Your task to perform on an android device: turn off location history Image 0: 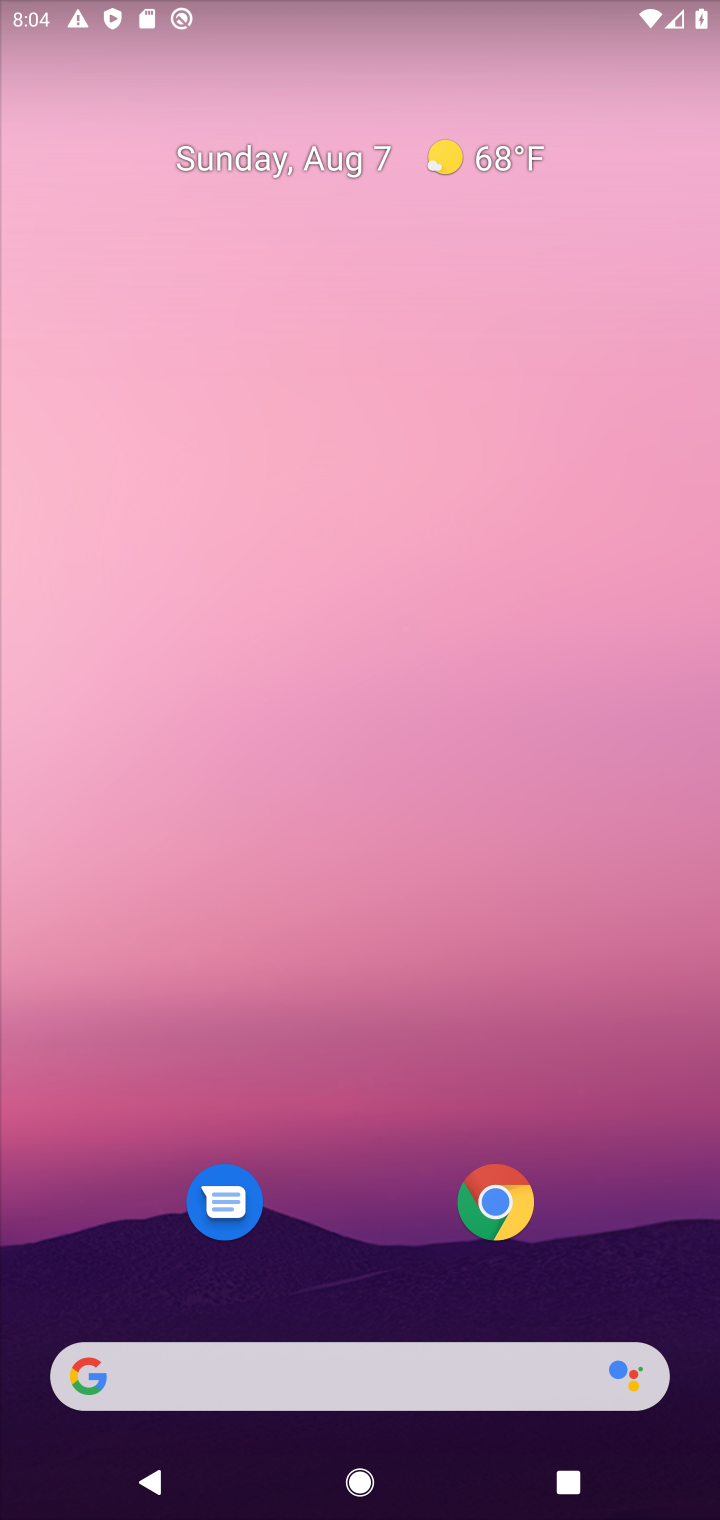
Step 0: drag from (331, 1327) to (535, 12)
Your task to perform on an android device: turn off location history Image 1: 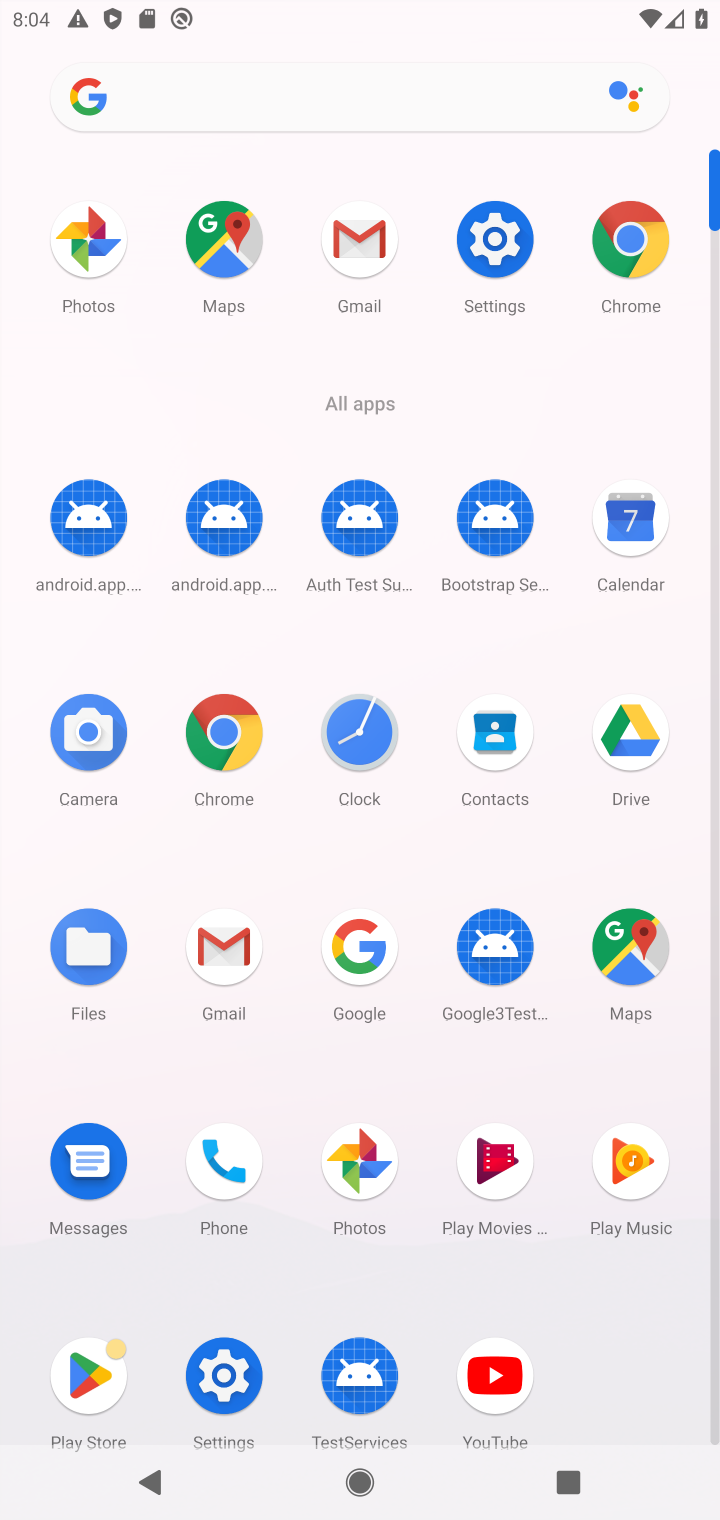
Step 1: click (505, 303)
Your task to perform on an android device: turn off location history Image 2: 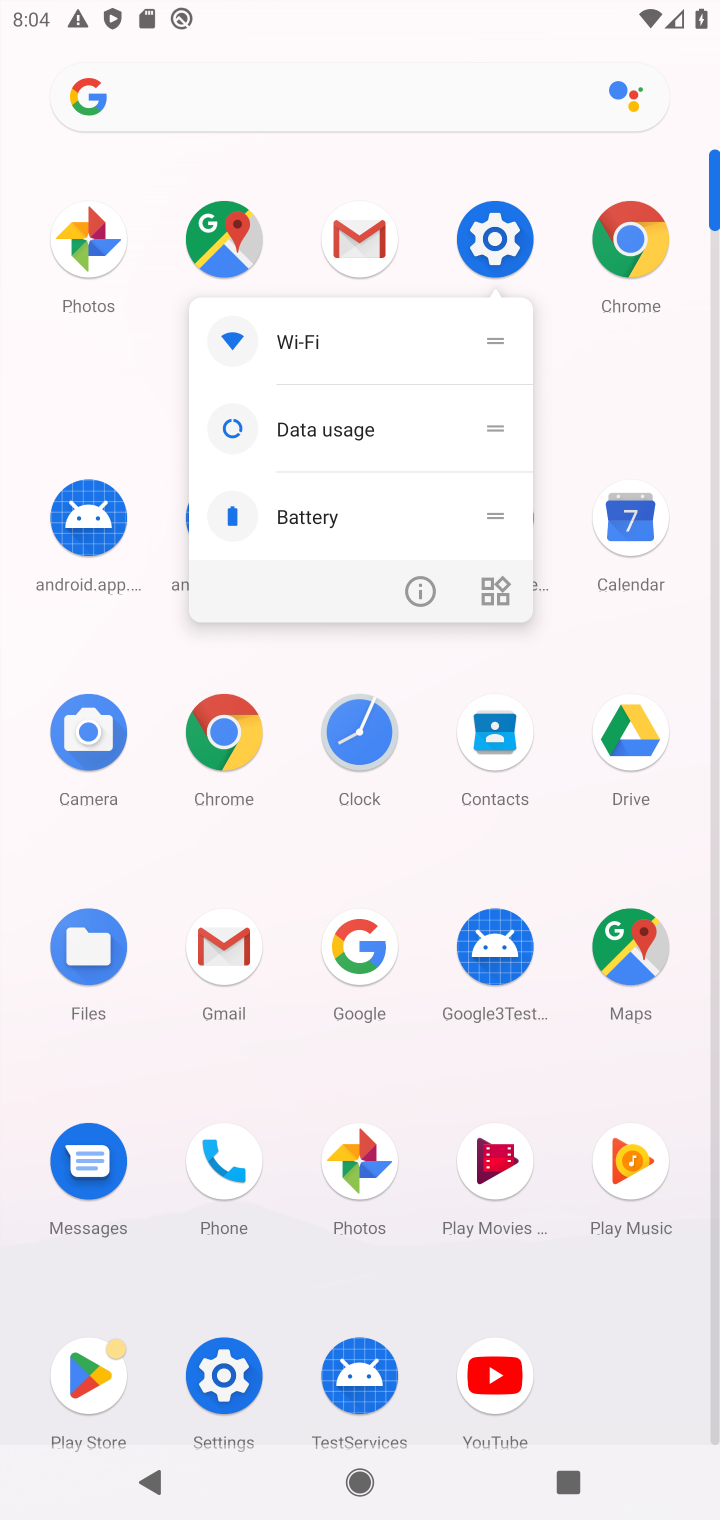
Step 2: click (511, 237)
Your task to perform on an android device: turn off location history Image 3: 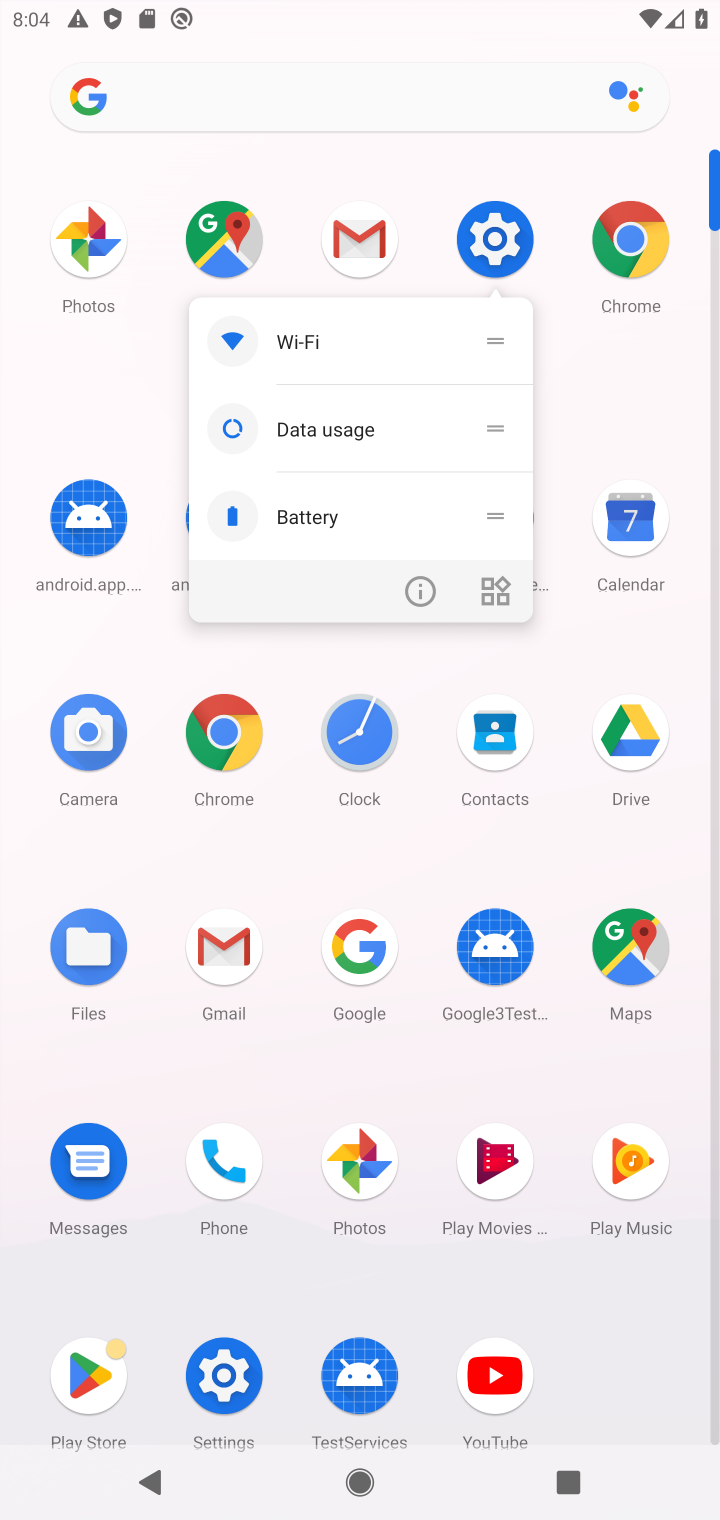
Step 3: click (518, 237)
Your task to perform on an android device: turn off location history Image 4: 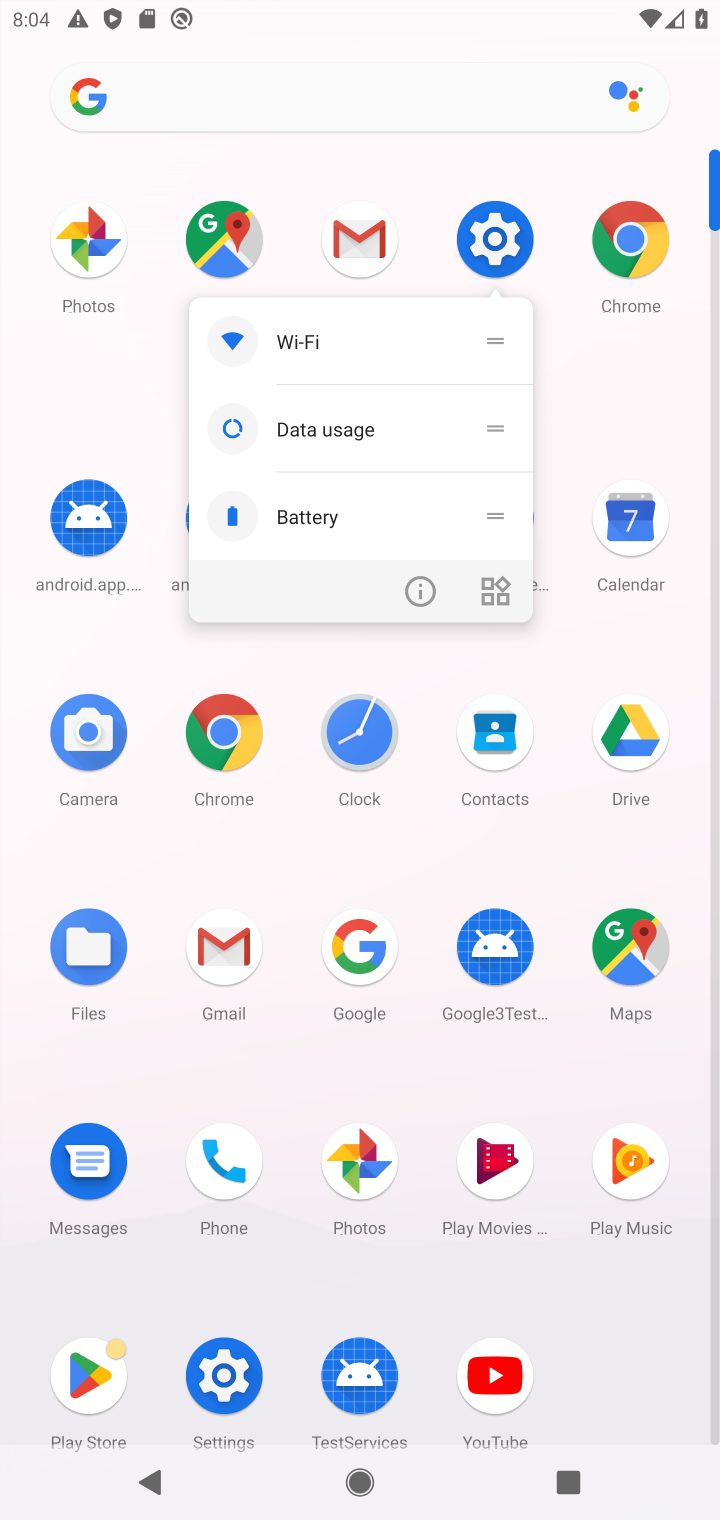
Step 4: click (491, 241)
Your task to perform on an android device: turn off location history Image 5: 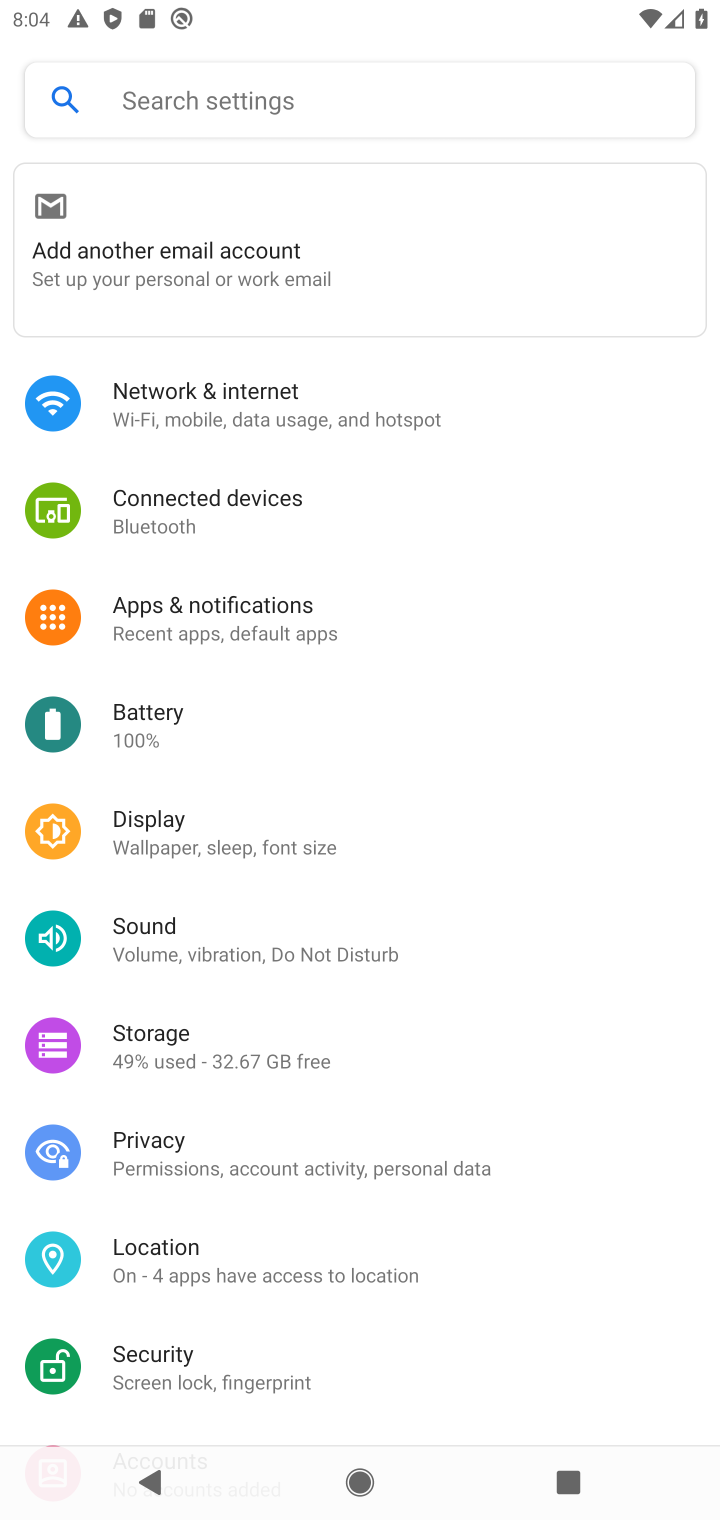
Step 5: click (218, 1249)
Your task to perform on an android device: turn off location history Image 6: 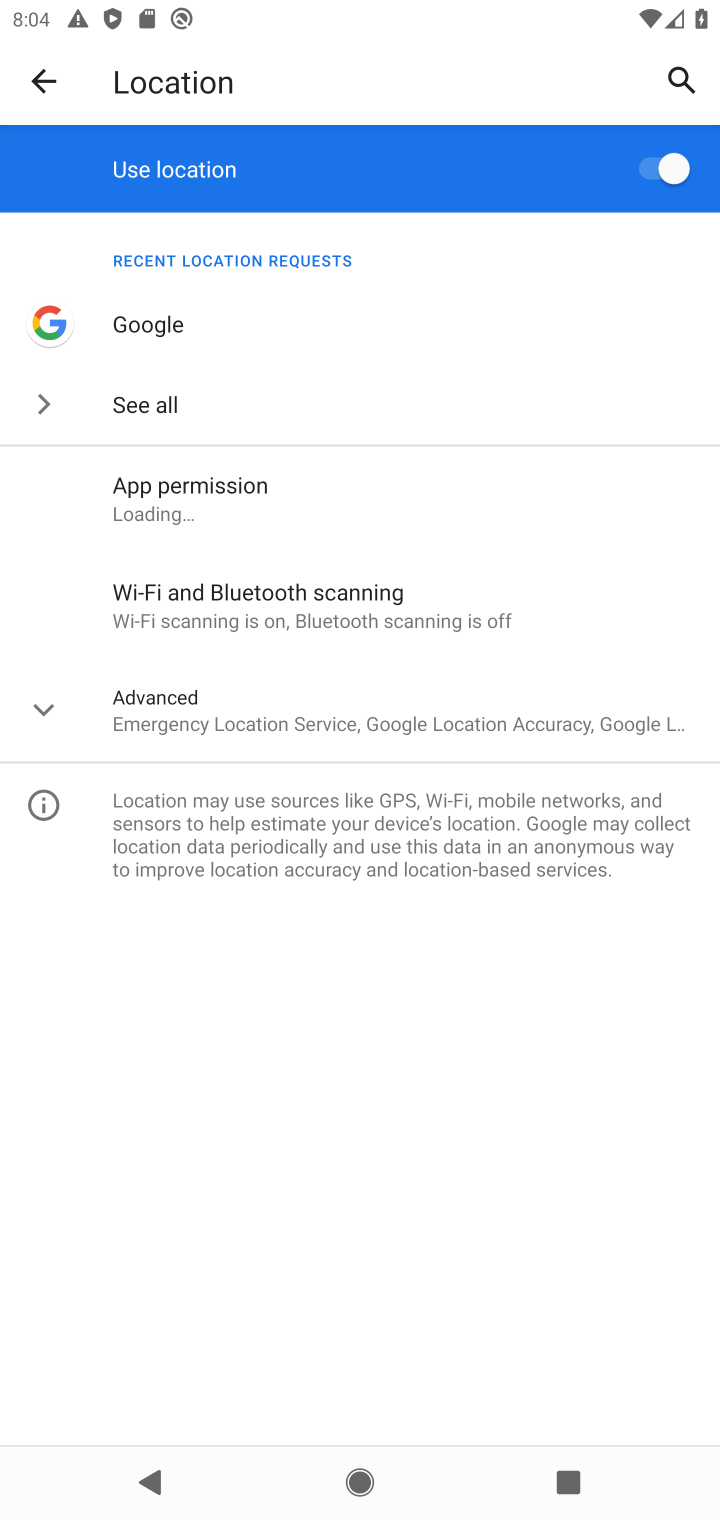
Step 6: click (204, 702)
Your task to perform on an android device: turn off location history Image 7: 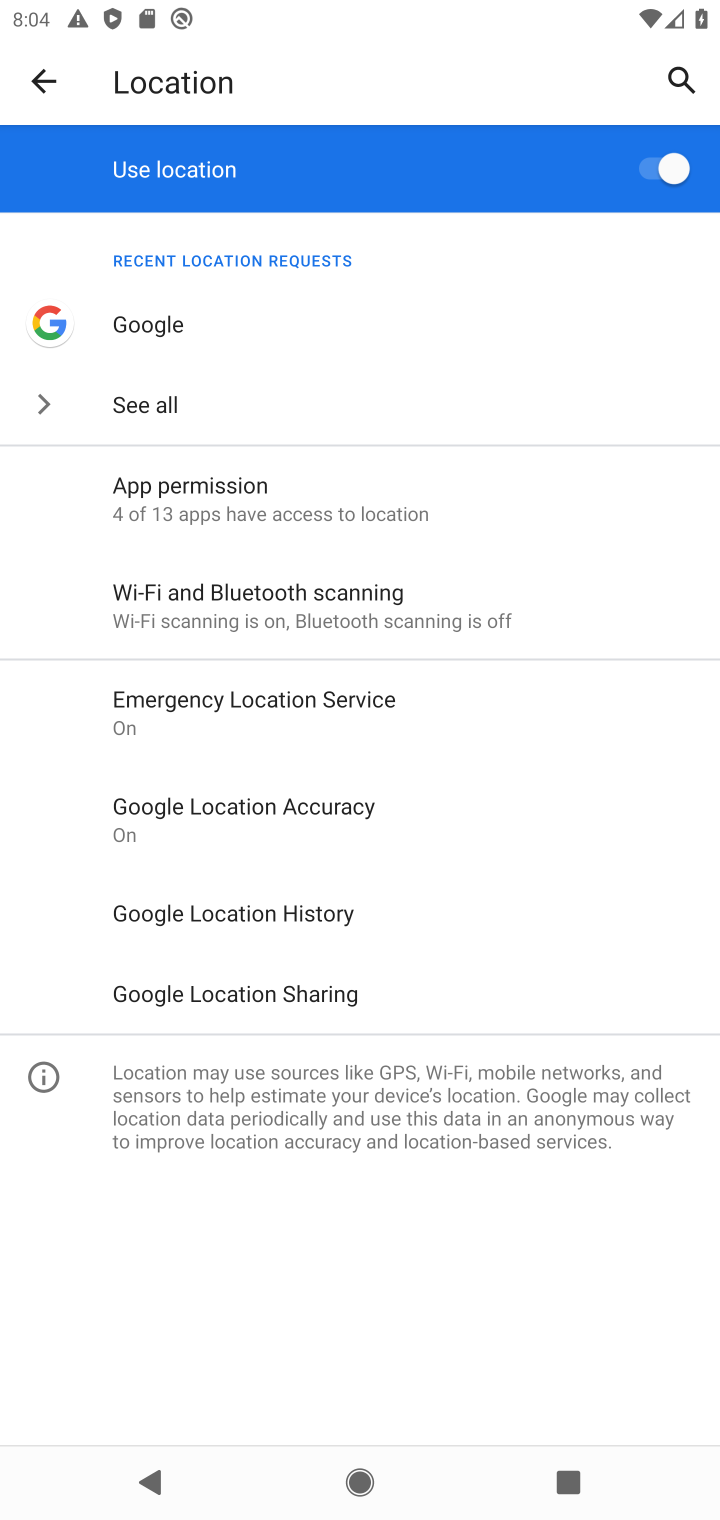
Step 7: click (269, 923)
Your task to perform on an android device: turn off location history Image 8: 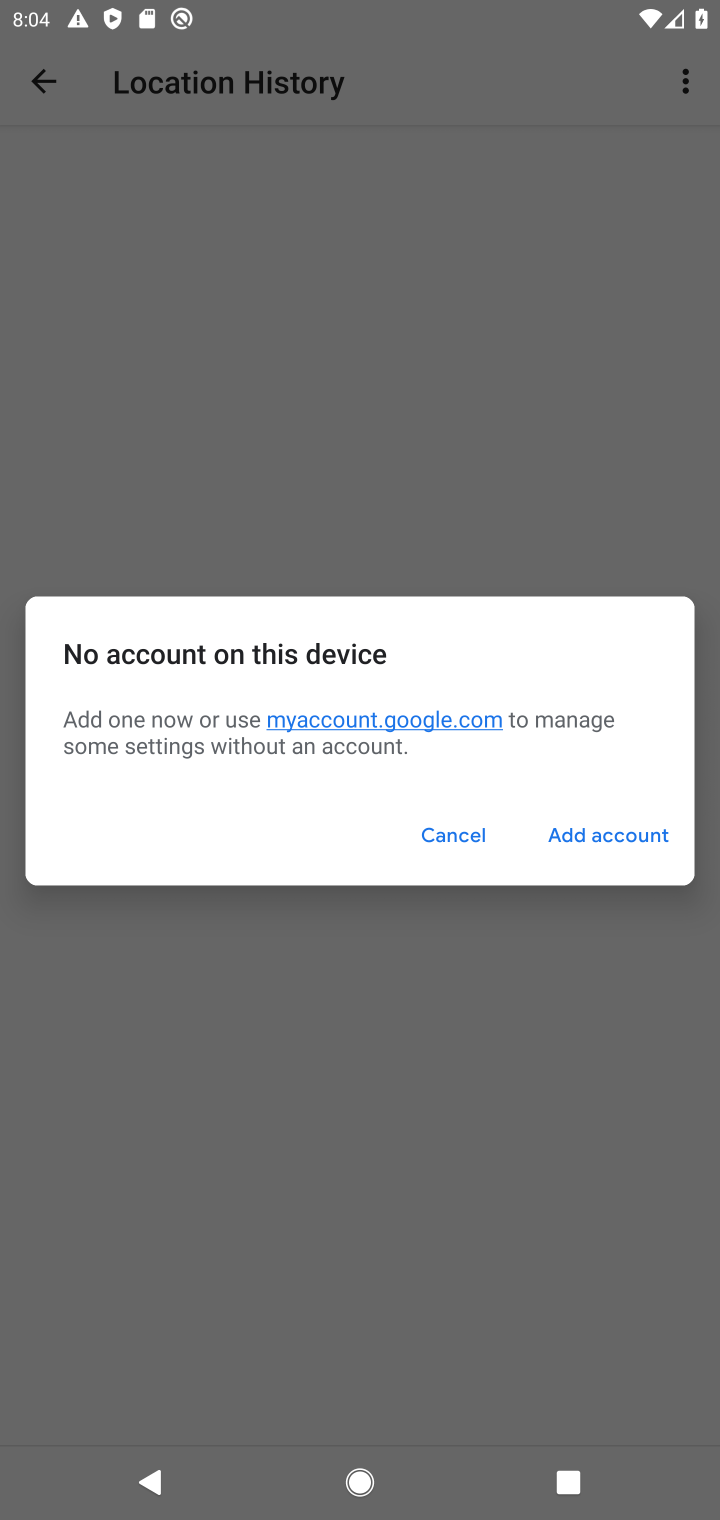
Step 8: click (437, 844)
Your task to perform on an android device: turn off location history Image 9: 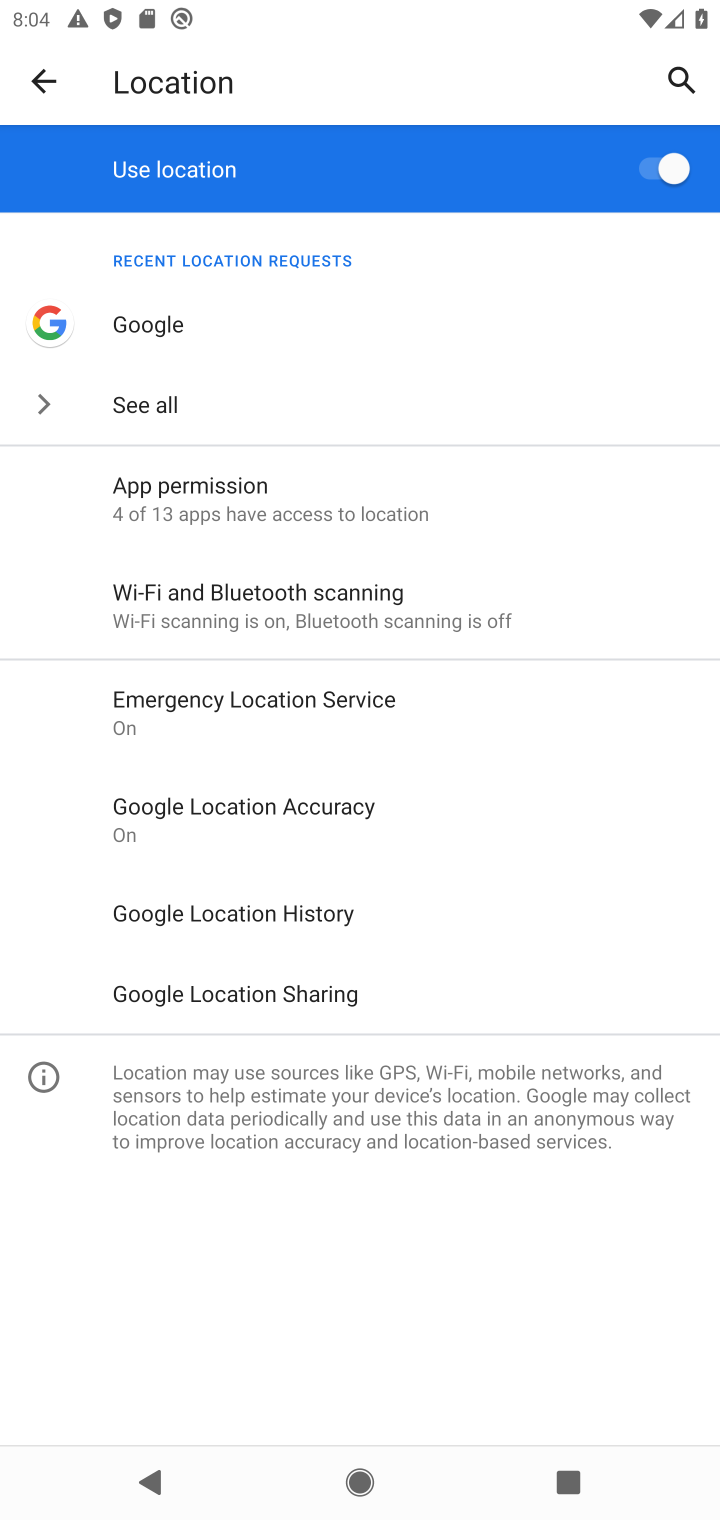
Step 9: click (359, 913)
Your task to perform on an android device: turn off location history Image 10: 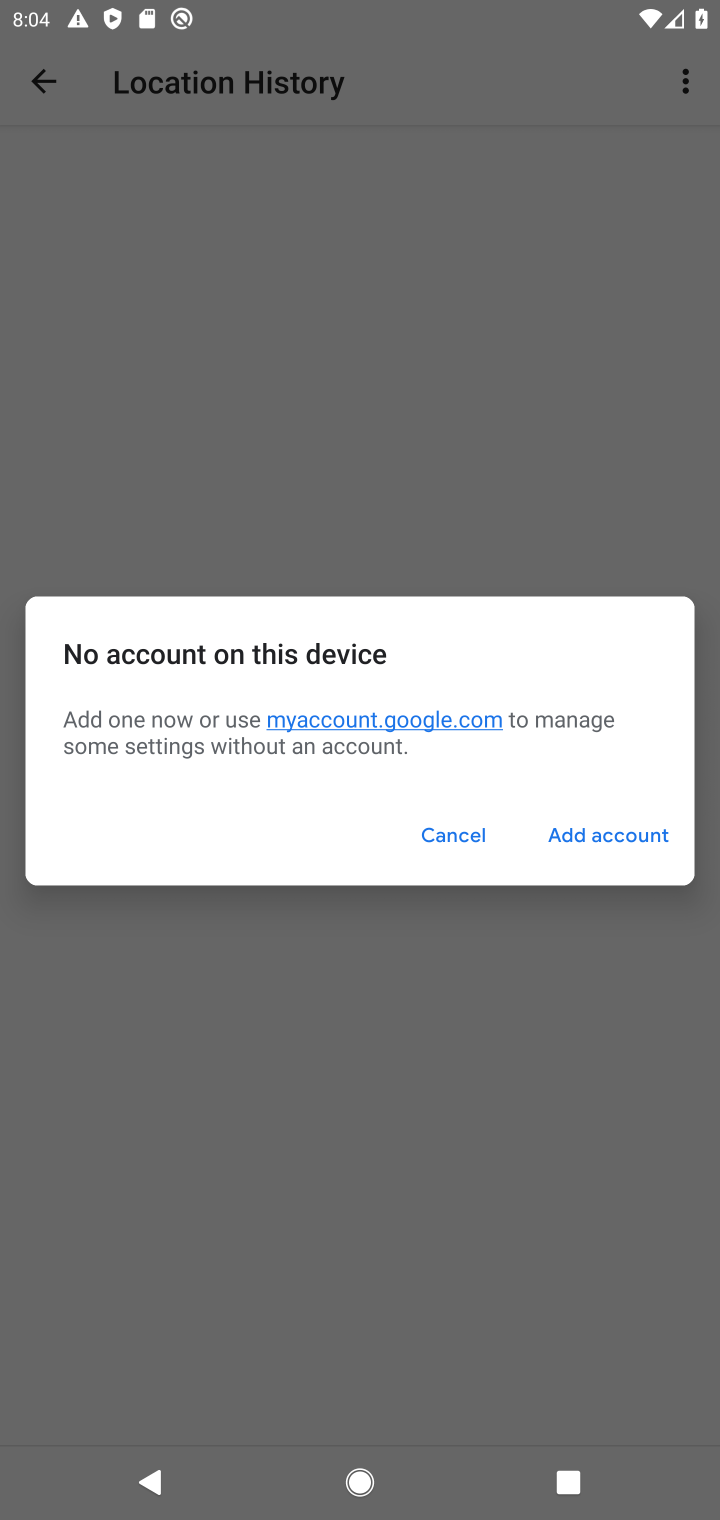
Step 10: click (439, 847)
Your task to perform on an android device: turn off location history Image 11: 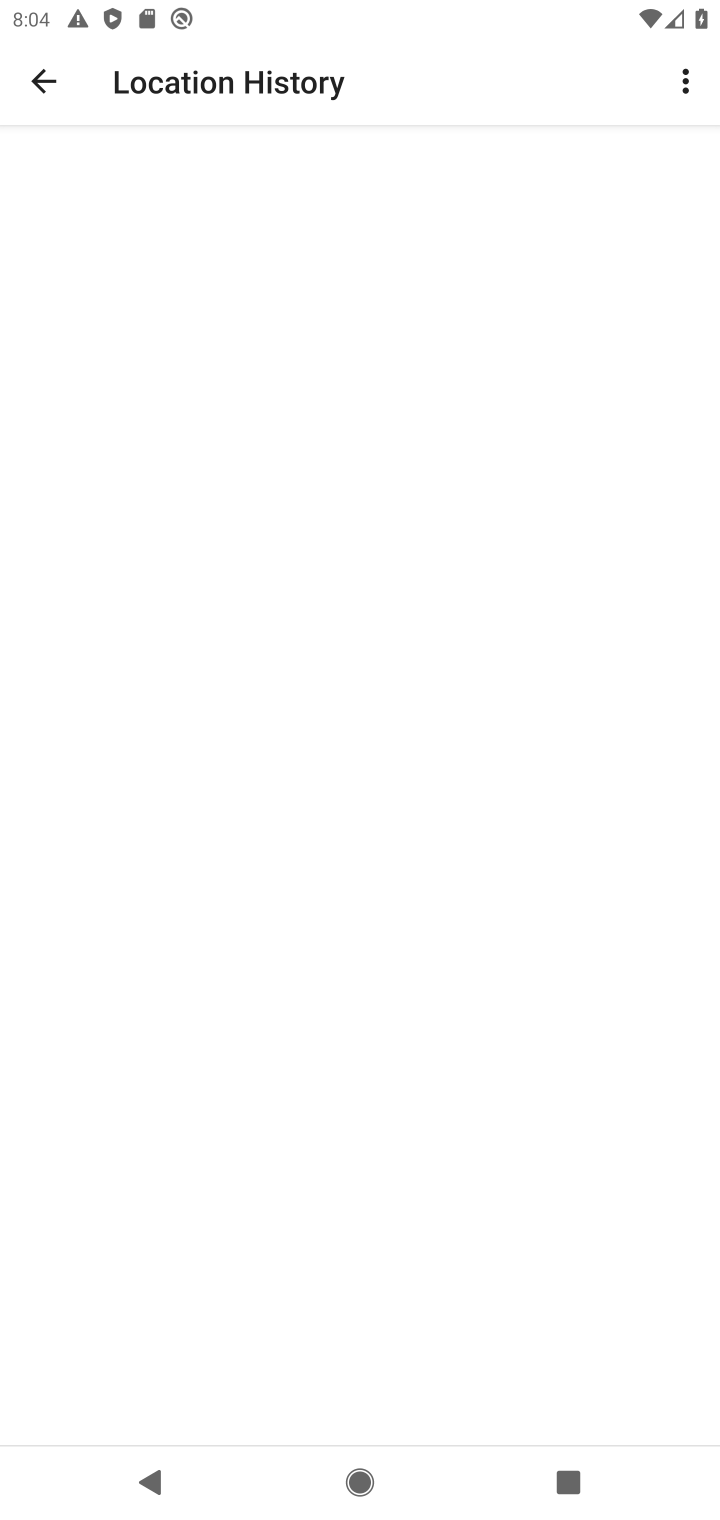
Step 11: task complete